Your task to perform on an android device: toggle airplane mode Image 0: 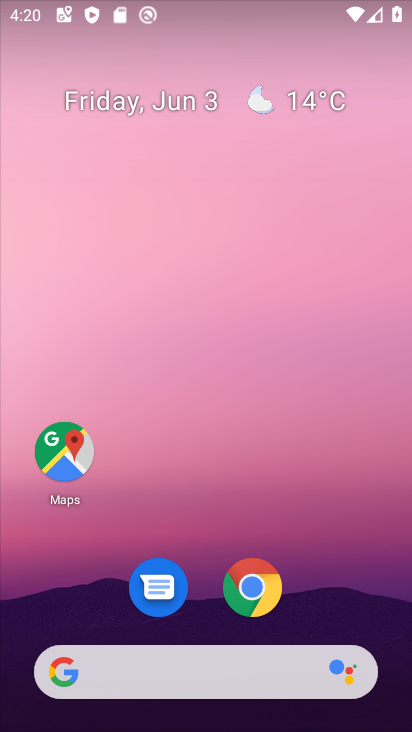
Step 0: drag from (203, 649) to (198, 262)
Your task to perform on an android device: toggle airplane mode Image 1: 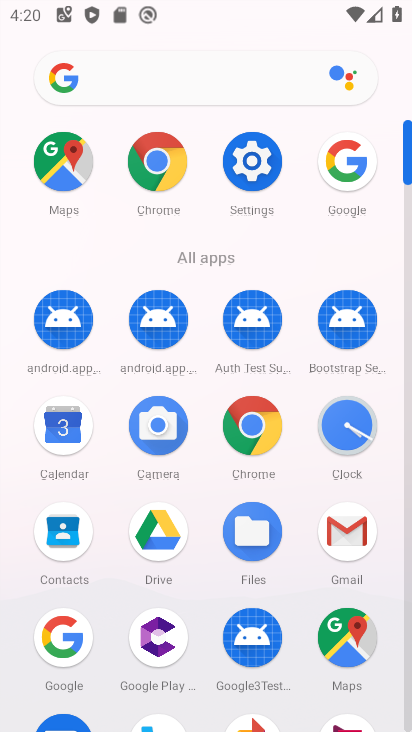
Step 1: click (243, 180)
Your task to perform on an android device: toggle airplane mode Image 2: 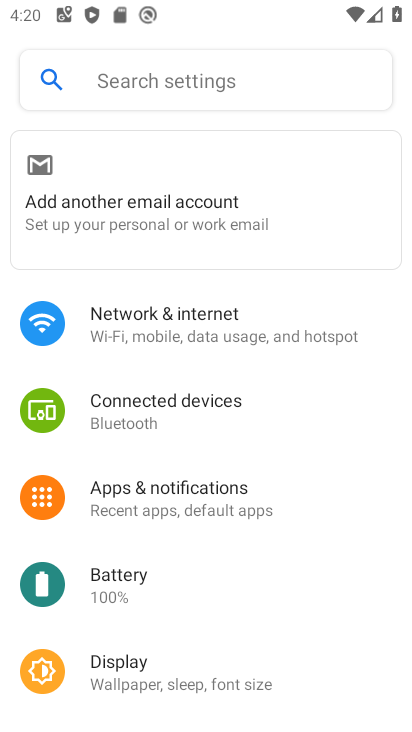
Step 2: click (226, 314)
Your task to perform on an android device: toggle airplane mode Image 3: 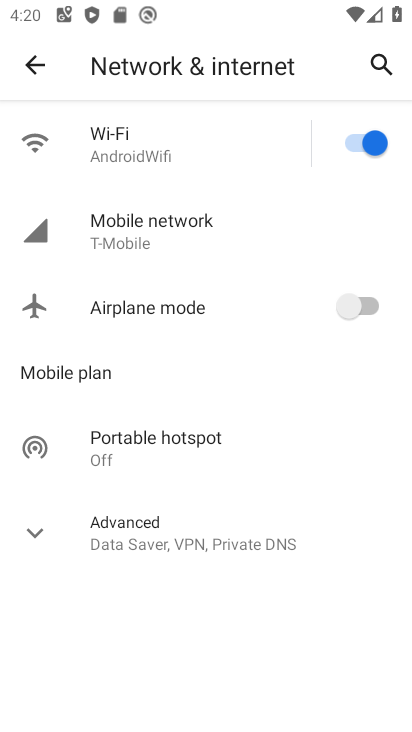
Step 3: click (368, 298)
Your task to perform on an android device: toggle airplane mode Image 4: 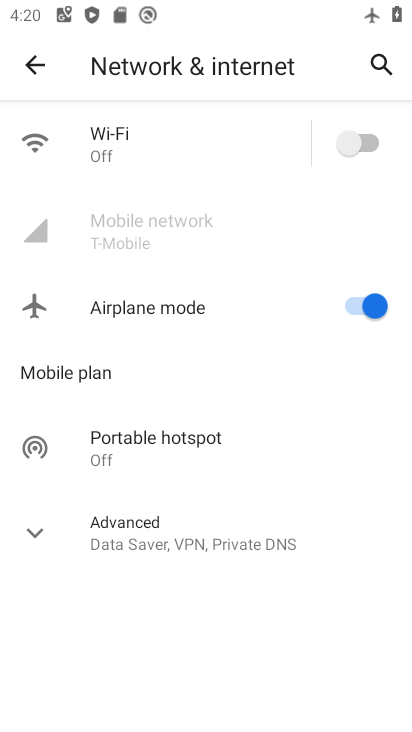
Step 4: task complete